Your task to perform on an android device: Open CNN.com Image 0: 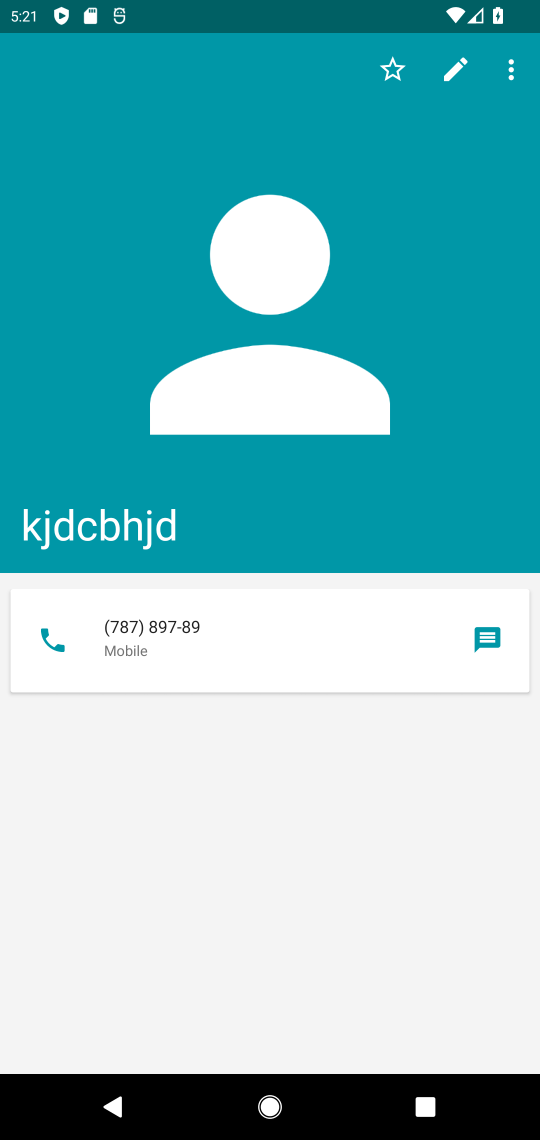
Step 0: press home button
Your task to perform on an android device: Open CNN.com Image 1: 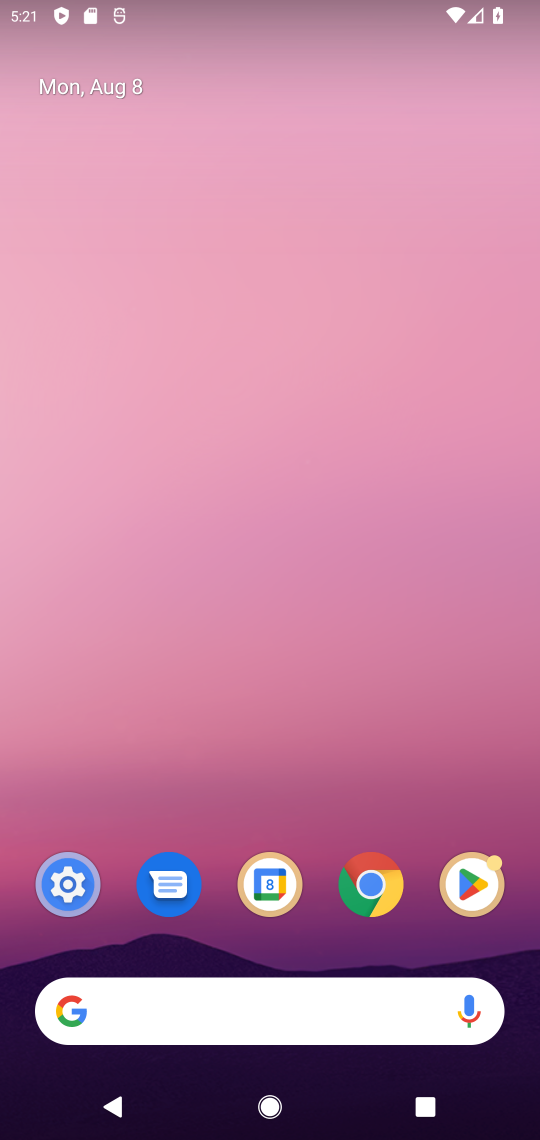
Step 1: click (391, 897)
Your task to perform on an android device: Open CNN.com Image 2: 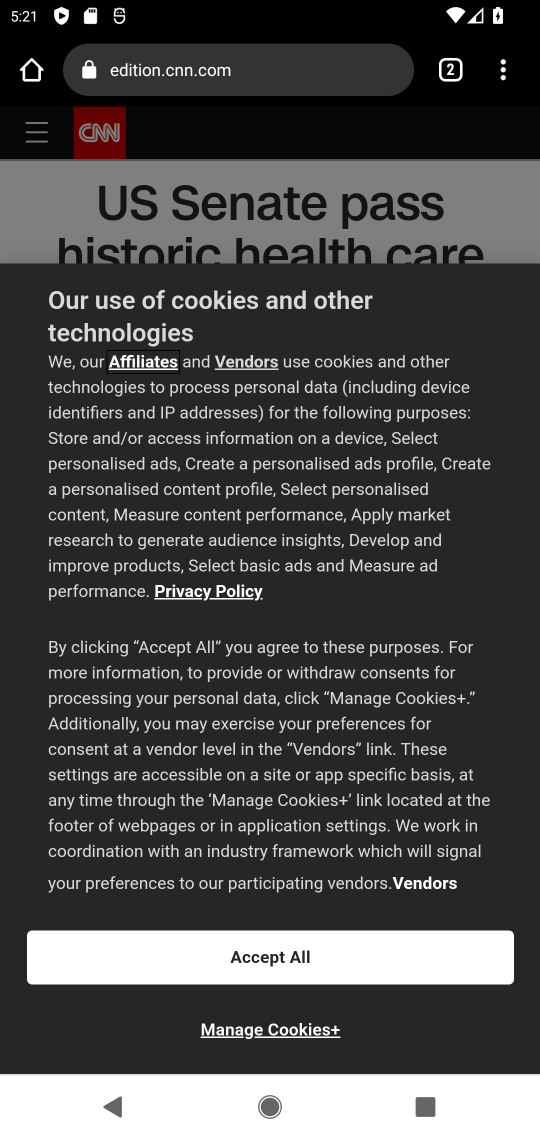
Step 2: task complete